Your task to perform on an android device: Open Chrome and go to the settings page Image 0: 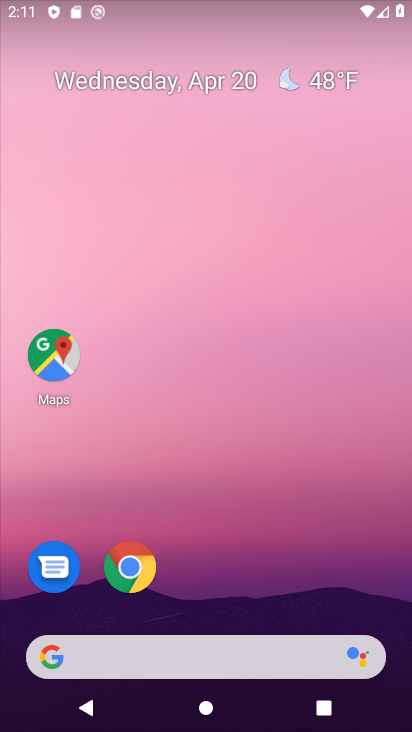
Step 0: click (124, 564)
Your task to perform on an android device: Open Chrome and go to the settings page Image 1: 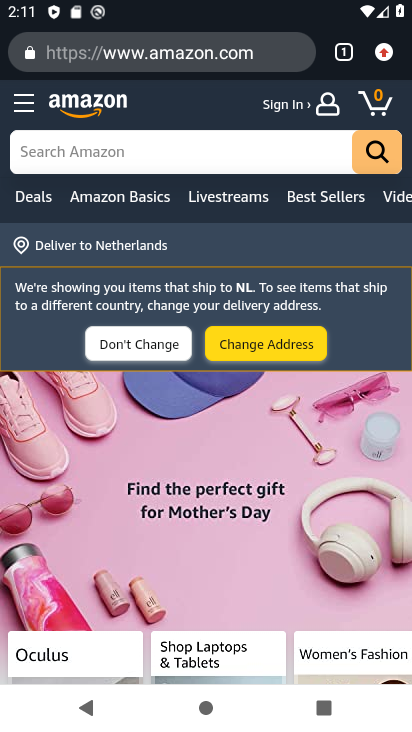
Step 1: click (387, 52)
Your task to perform on an android device: Open Chrome and go to the settings page Image 2: 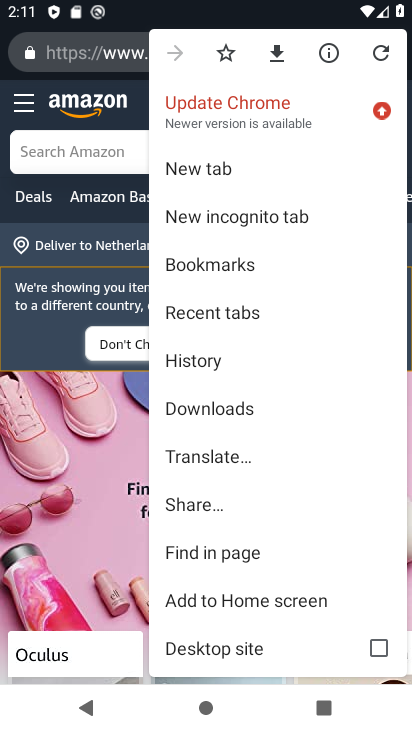
Step 2: drag from (301, 620) to (289, 228)
Your task to perform on an android device: Open Chrome and go to the settings page Image 3: 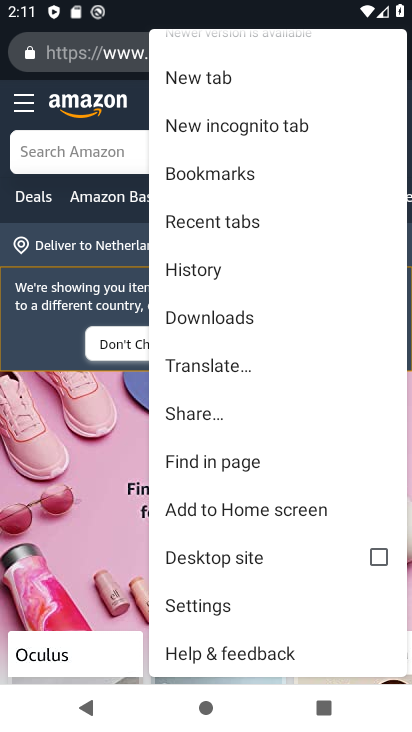
Step 3: click (225, 604)
Your task to perform on an android device: Open Chrome and go to the settings page Image 4: 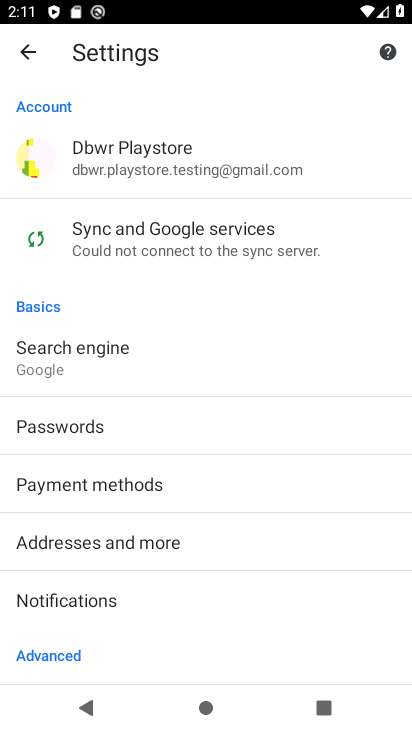
Step 4: task complete